Your task to perform on an android device: toggle show notifications on the lock screen Image 0: 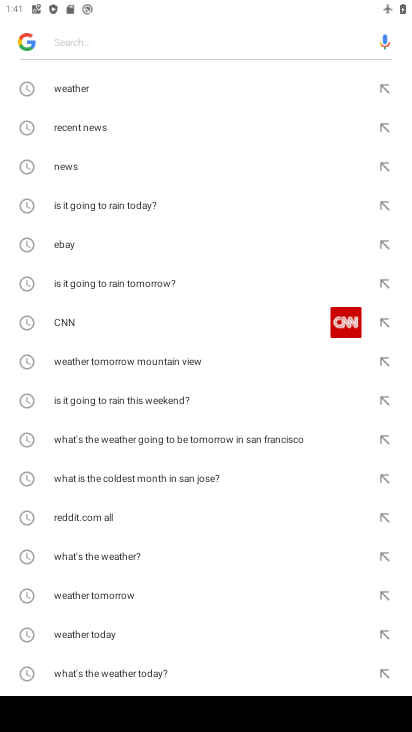
Step 0: press home button
Your task to perform on an android device: toggle show notifications on the lock screen Image 1: 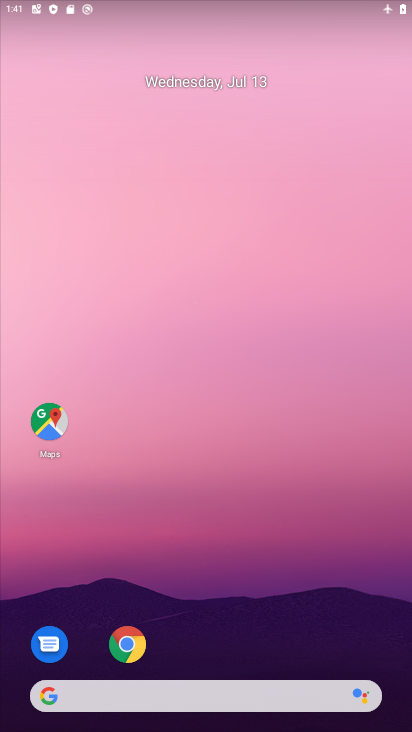
Step 1: drag from (338, 567) to (285, 60)
Your task to perform on an android device: toggle show notifications on the lock screen Image 2: 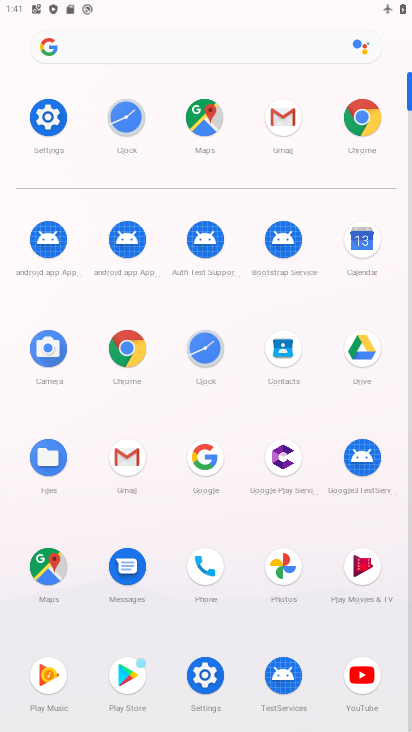
Step 2: click (46, 125)
Your task to perform on an android device: toggle show notifications on the lock screen Image 3: 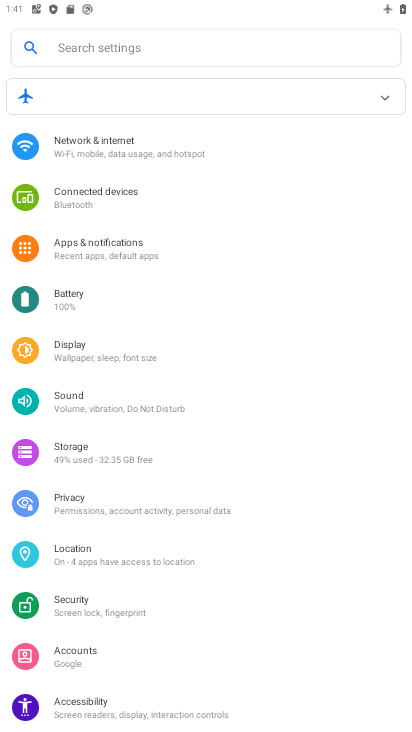
Step 3: click (144, 259)
Your task to perform on an android device: toggle show notifications on the lock screen Image 4: 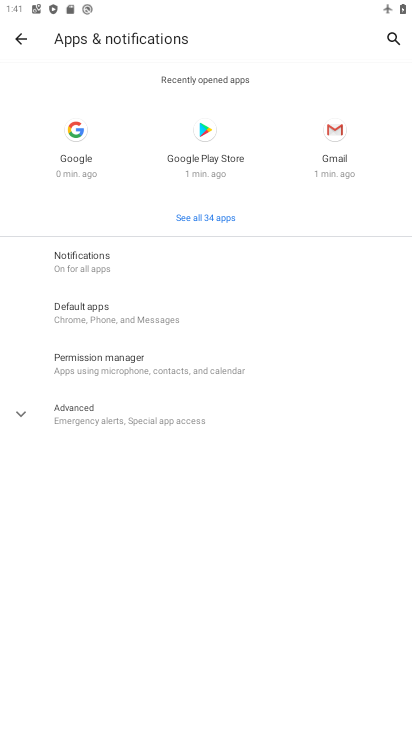
Step 4: click (124, 266)
Your task to perform on an android device: toggle show notifications on the lock screen Image 5: 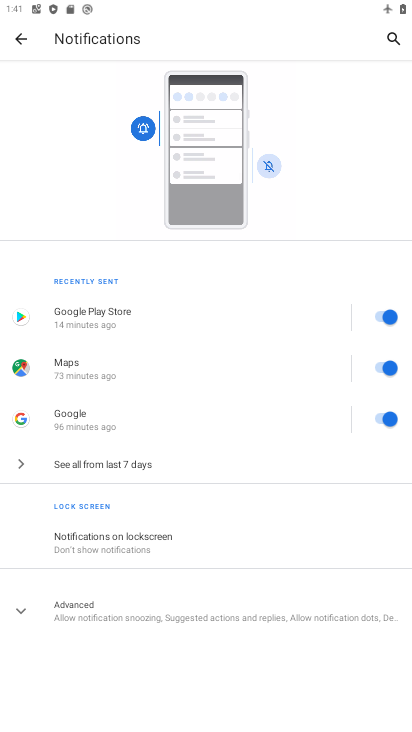
Step 5: click (134, 541)
Your task to perform on an android device: toggle show notifications on the lock screen Image 6: 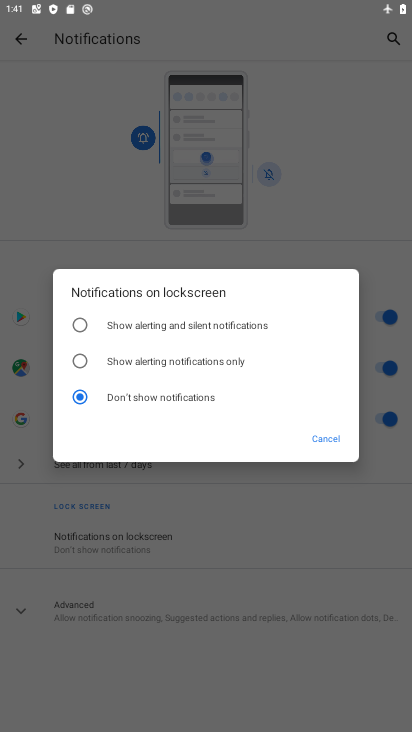
Step 6: click (198, 361)
Your task to perform on an android device: toggle show notifications on the lock screen Image 7: 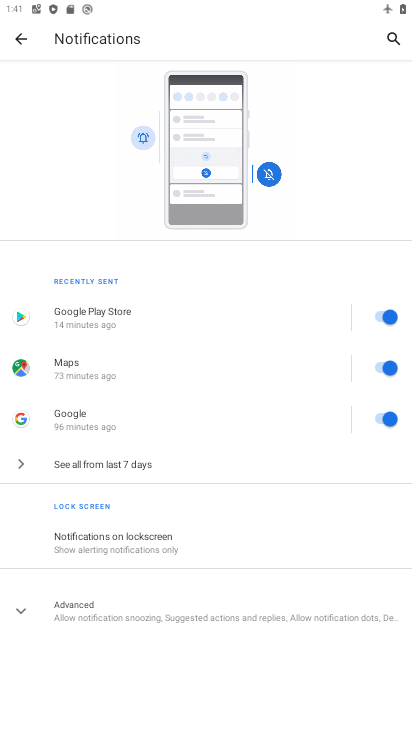
Step 7: task complete